Your task to perform on an android device: turn on the 24-hour format for clock Image 0: 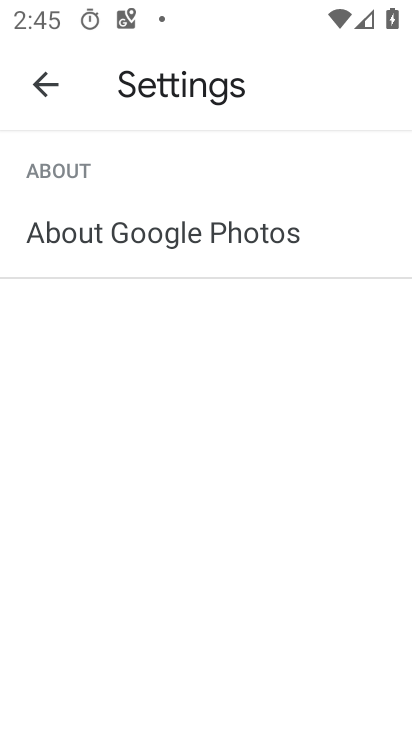
Step 0: press home button
Your task to perform on an android device: turn on the 24-hour format for clock Image 1: 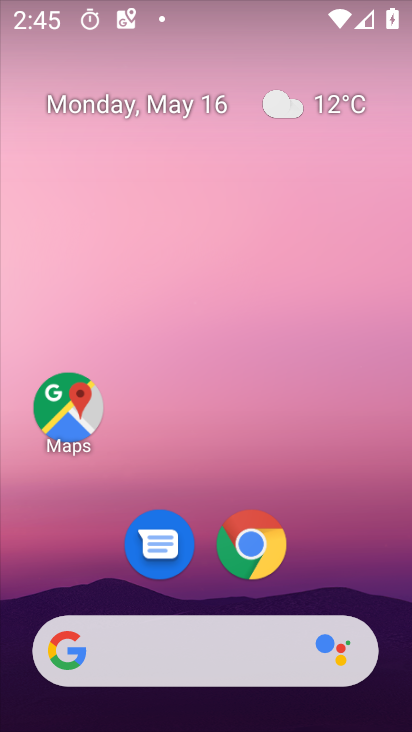
Step 1: drag from (215, 721) to (230, 192)
Your task to perform on an android device: turn on the 24-hour format for clock Image 2: 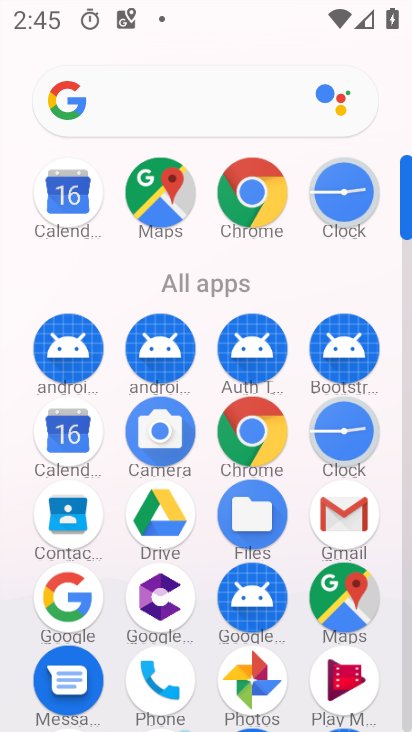
Step 2: click (348, 426)
Your task to perform on an android device: turn on the 24-hour format for clock Image 3: 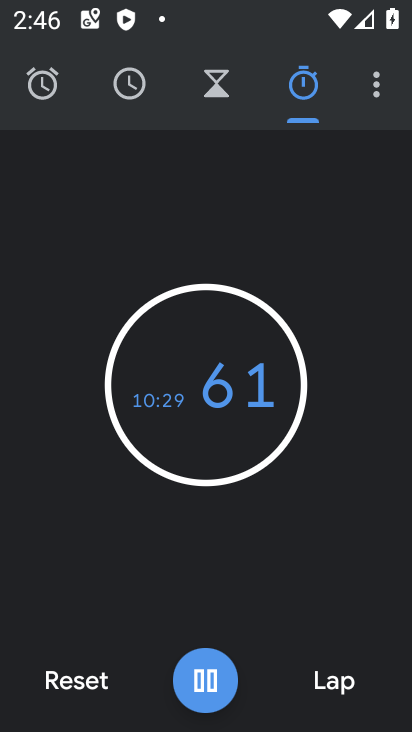
Step 3: click (378, 94)
Your task to perform on an android device: turn on the 24-hour format for clock Image 4: 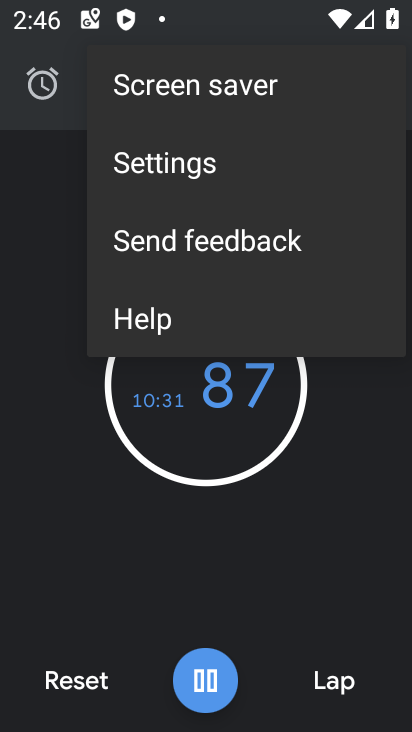
Step 4: click (195, 162)
Your task to perform on an android device: turn on the 24-hour format for clock Image 5: 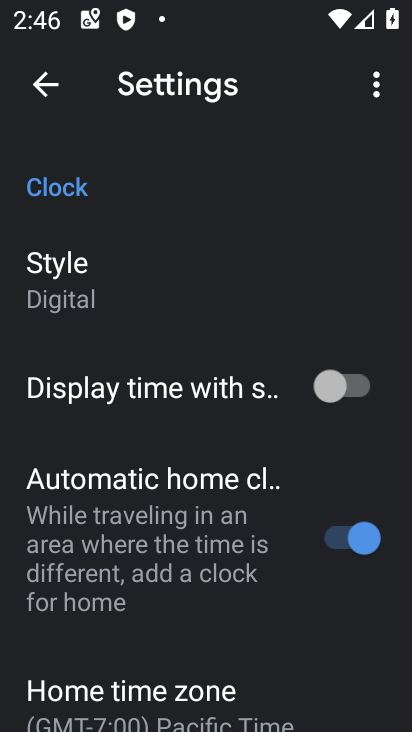
Step 5: drag from (119, 650) to (155, 396)
Your task to perform on an android device: turn on the 24-hour format for clock Image 6: 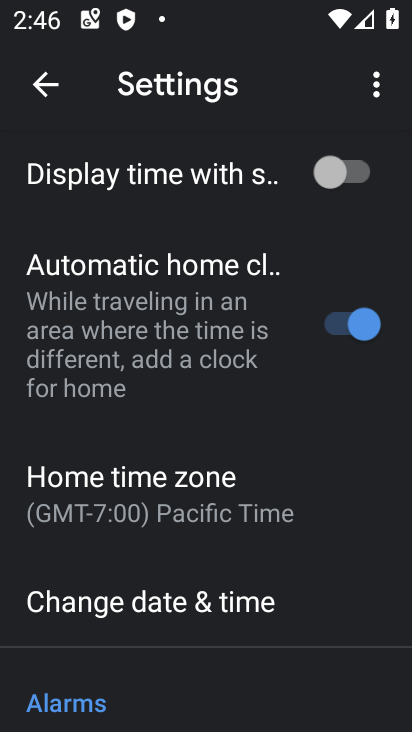
Step 6: drag from (161, 640) to (176, 446)
Your task to perform on an android device: turn on the 24-hour format for clock Image 7: 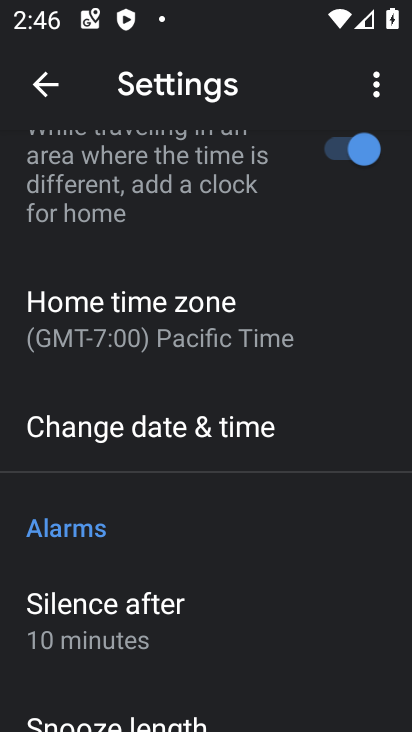
Step 7: click (146, 429)
Your task to perform on an android device: turn on the 24-hour format for clock Image 8: 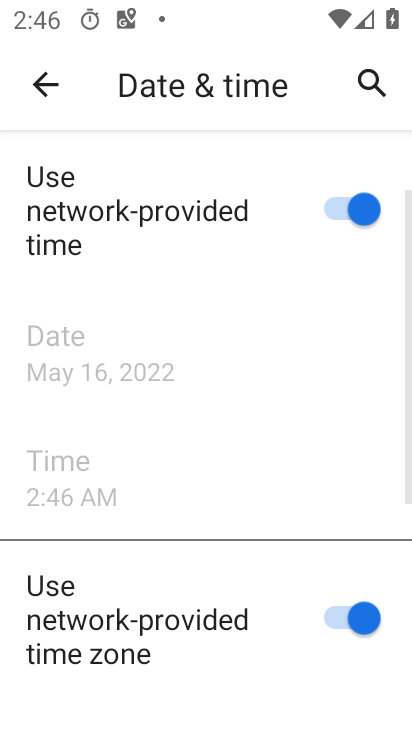
Step 8: drag from (232, 717) to (234, 348)
Your task to perform on an android device: turn on the 24-hour format for clock Image 9: 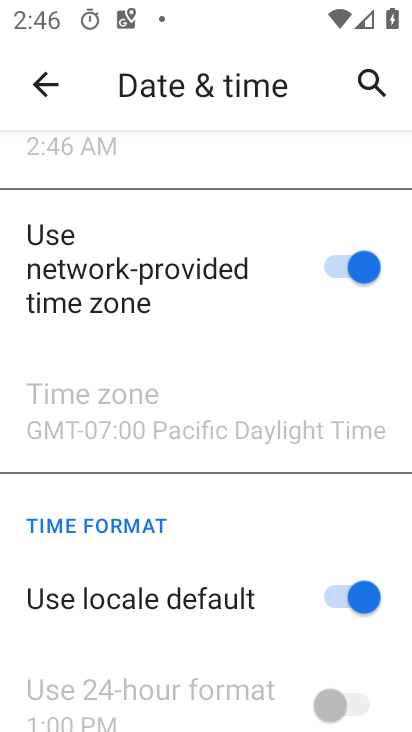
Step 9: drag from (191, 652) to (200, 362)
Your task to perform on an android device: turn on the 24-hour format for clock Image 10: 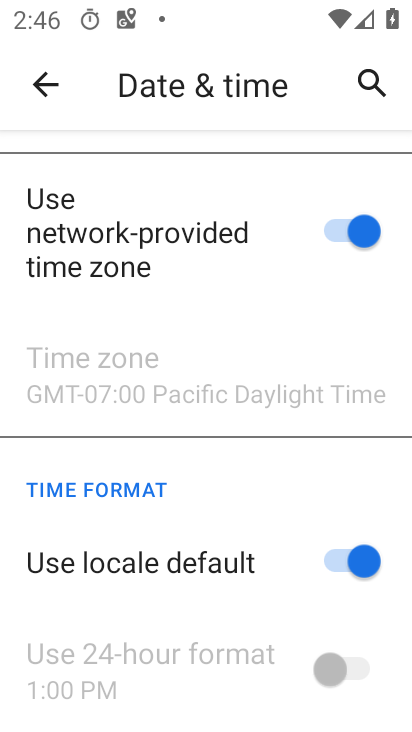
Step 10: click (346, 560)
Your task to perform on an android device: turn on the 24-hour format for clock Image 11: 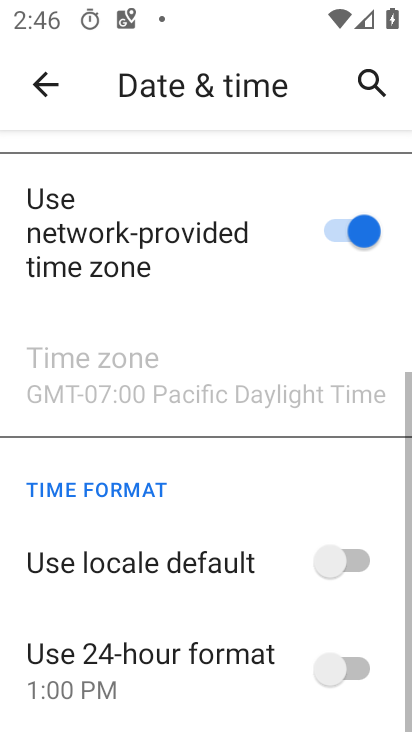
Step 11: click (359, 666)
Your task to perform on an android device: turn on the 24-hour format for clock Image 12: 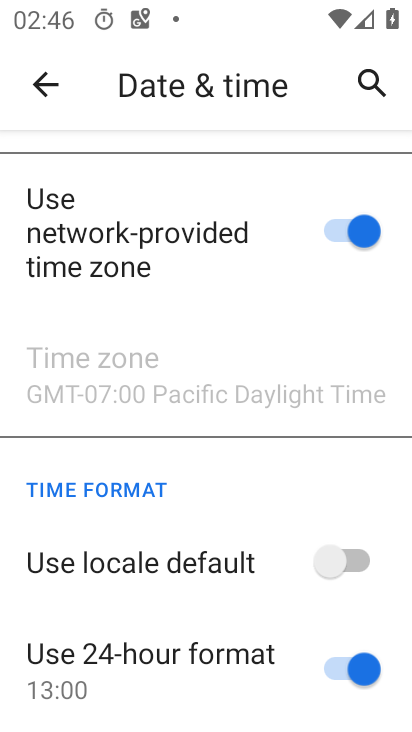
Step 12: task complete